Your task to perform on an android device: Open internet settings Image 0: 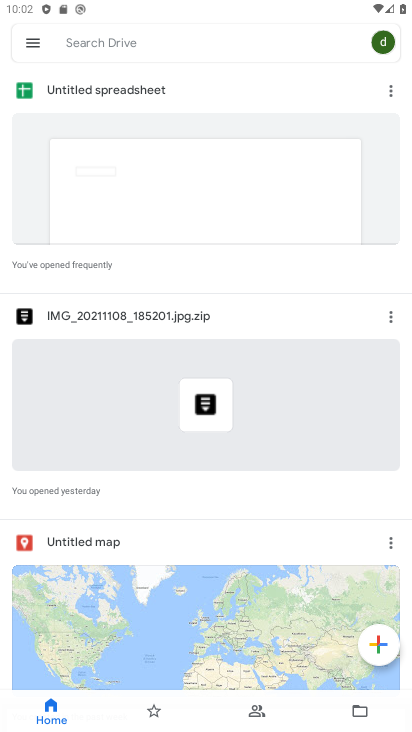
Step 0: press home button
Your task to perform on an android device: Open internet settings Image 1: 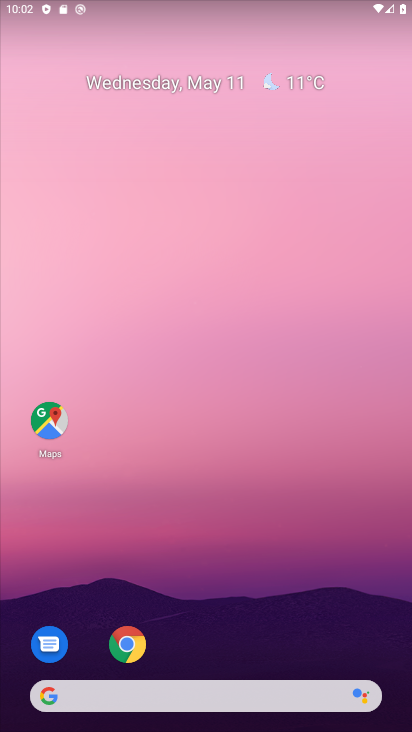
Step 1: drag from (291, 475) to (275, 10)
Your task to perform on an android device: Open internet settings Image 2: 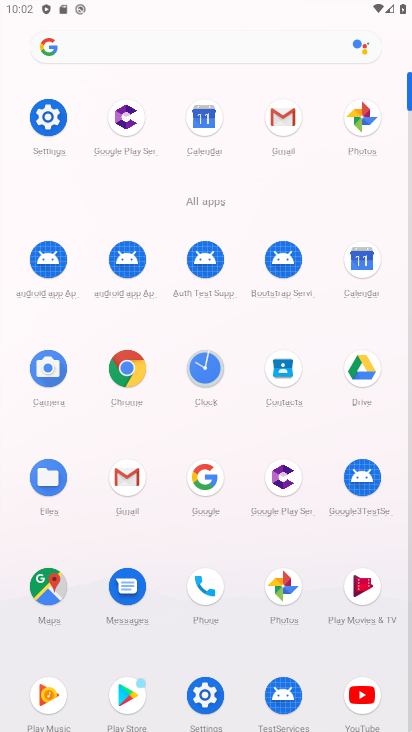
Step 2: click (49, 130)
Your task to perform on an android device: Open internet settings Image 3: 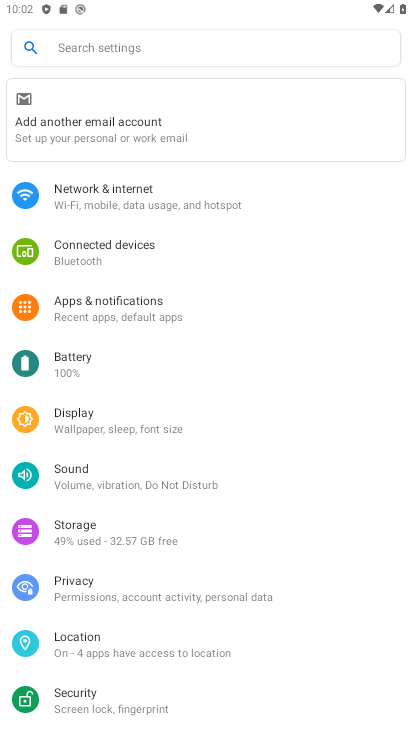
Step 3: click (100, 212)
Your task to perform on an android device: Open internet settings Image 4: 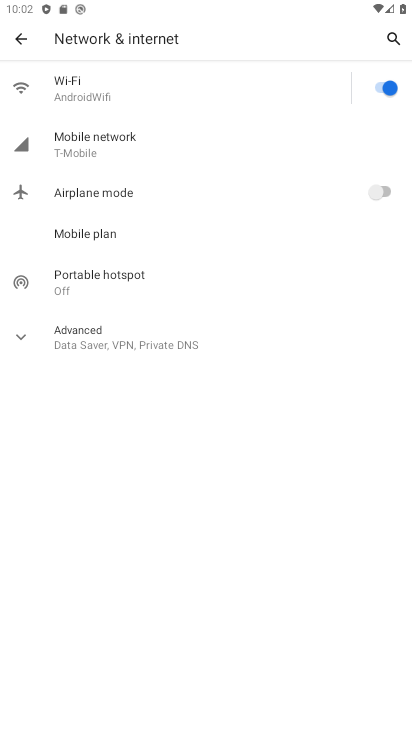
Step 4: task complete